Your task to perform on an android device: Open Android settings Image 0: 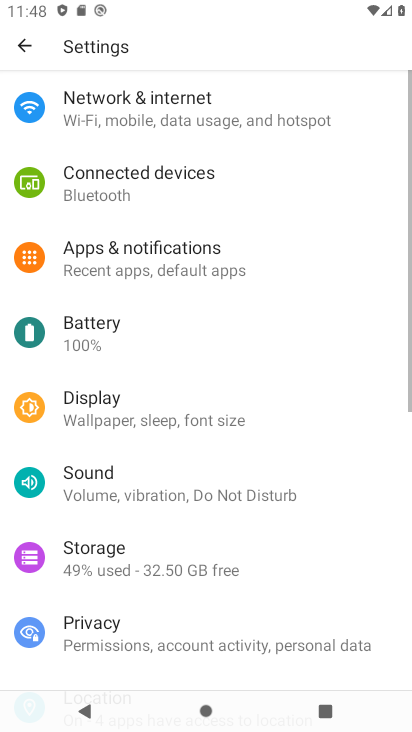
Step 0: press home button
Your task to perform on an android device: Open Android settings Image 1: 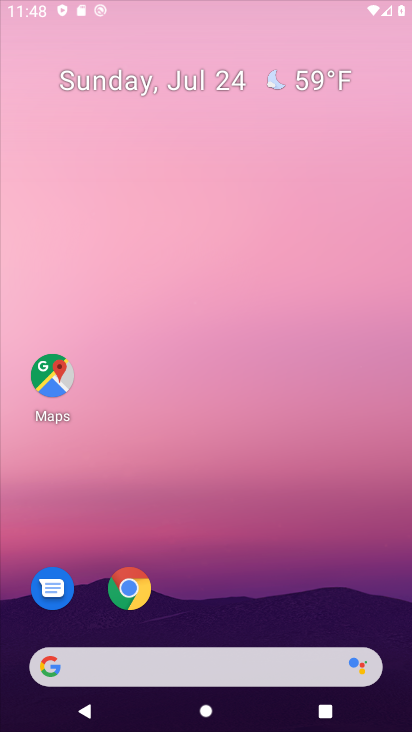
Step 1: drag from (357, 528) to (226, 76)
Your task to perform on an android device: Open Android settings Image 2: 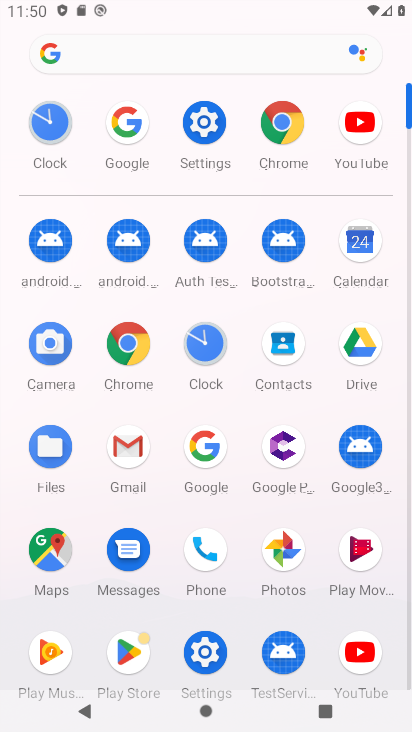
Step 2: click (196, 637)
Your task to perform on an android device: Open Android settings Image 3: 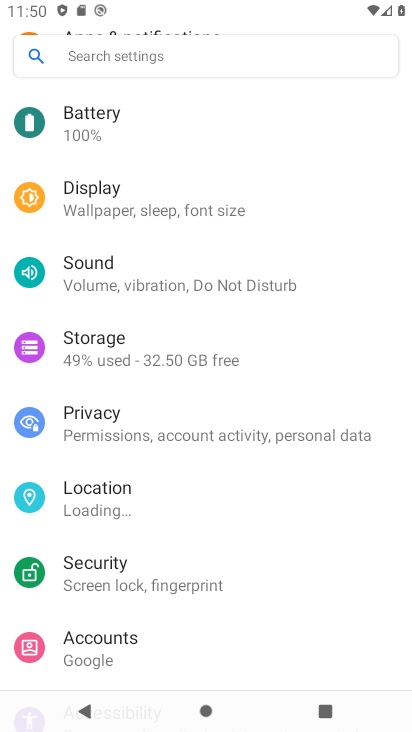
Step 3: task complete